Your task to perform on an android device: Check the news Image 0: 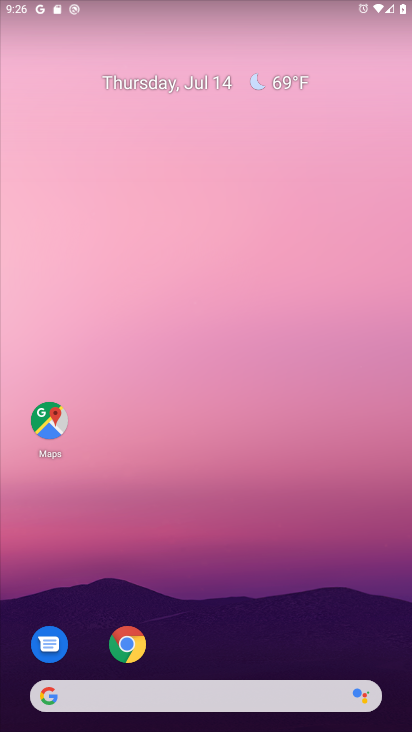
Step 0: click (117, 687)
Your task to perform on an android device: Check the news Image 1: 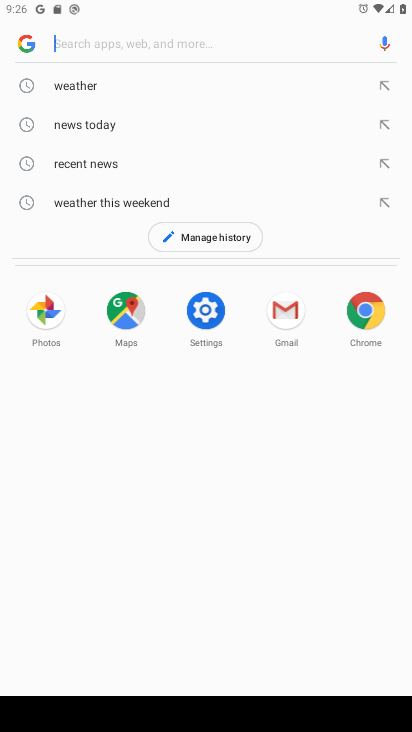
Step 1: click (36, 51)
Your task to perform on an android device: Check the news Image 2: 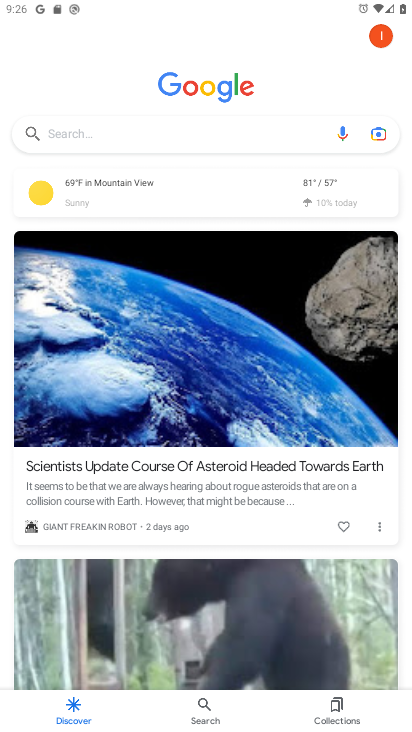
Step 2: task complete